Your task to perform on an android device: What's the weather? Image 0: 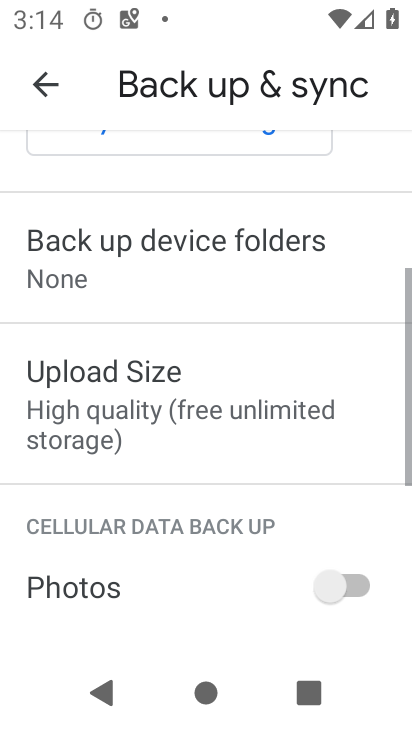
Step 0: press home button
Your task to perform on an android device: What's the weather? Image 1: 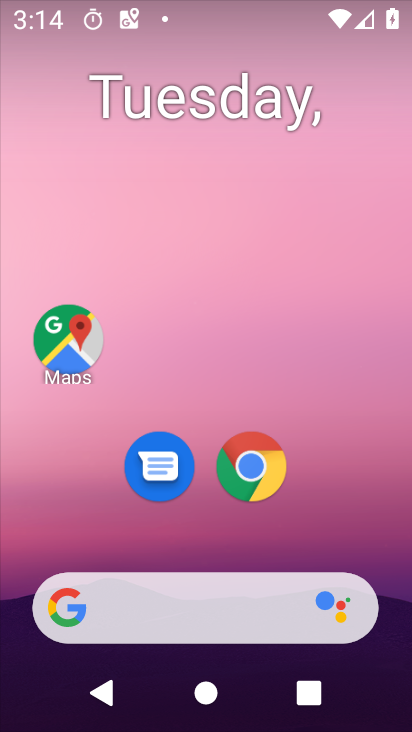
Step 1: click (221, 597)
Your task to perform on an android device: What's the weather? Image 2: 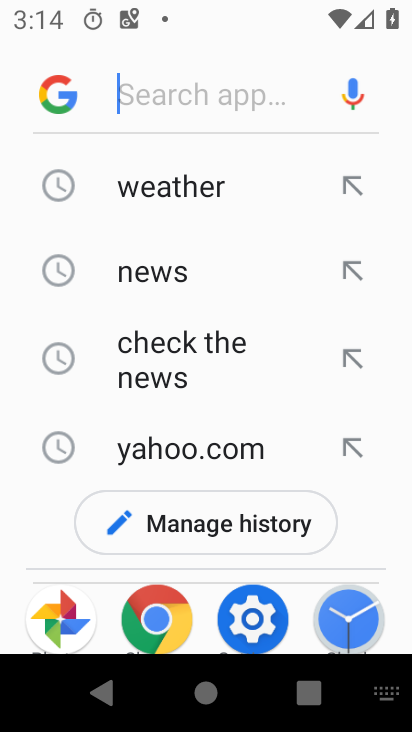
Step 2: click (218, 198)
Your task to perform on an android device: What's the weather? Image 3: 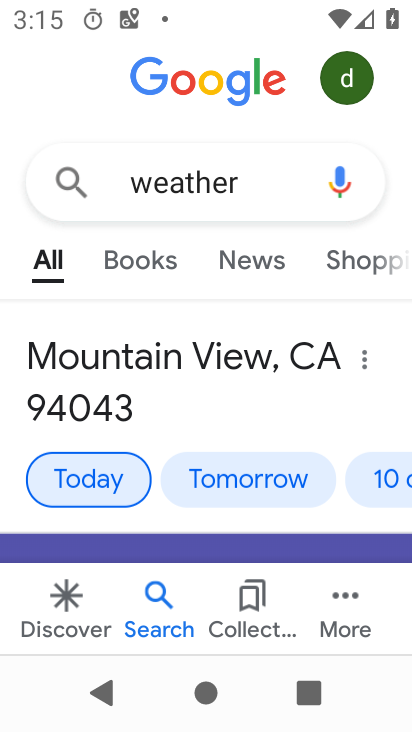
Step 3: task complete